Your task to perform on an android device: turn off sleep mode Image 0: 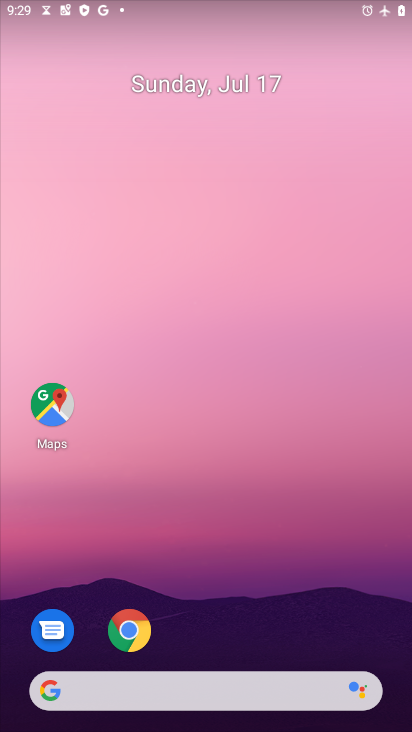
Step 0: drag from (199, 526) to (210, 138)
Your task to perform on an android device: turn off sleep mode Image 1: 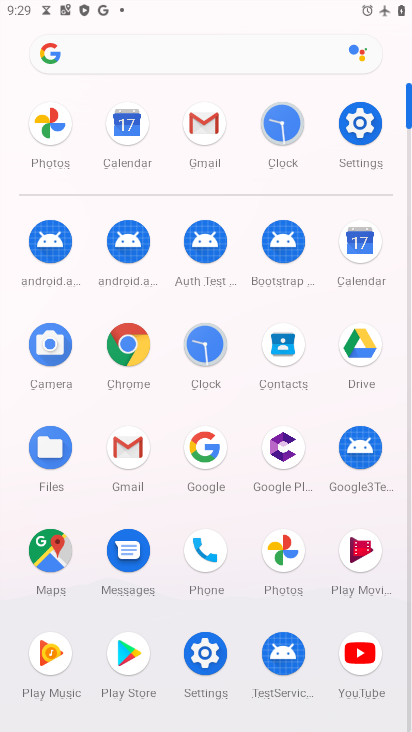
Step 1: click (356, 126)
Your task to perform on an android device: turn off sleep mode Image 2: 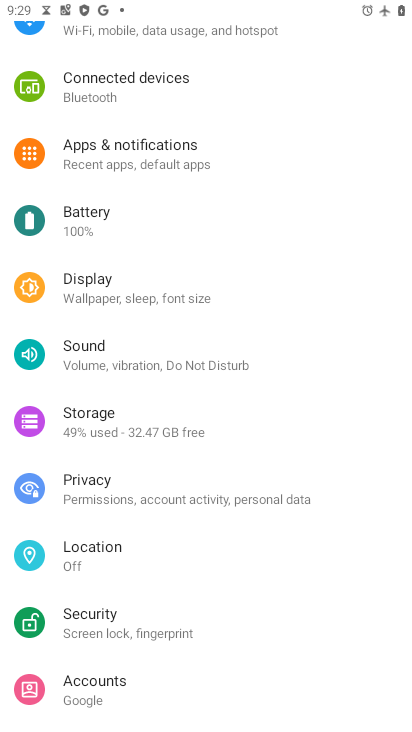
Step 2: task complete